Your task to perform on an android device: Open Google Maps and go to "Timeline" Image 0: 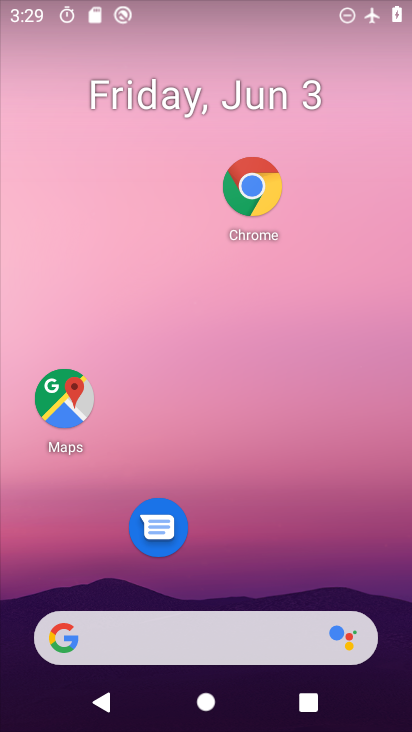
Step 0: click (73, 393)
Your task to perform on an android device: Open Google Maps and go to "Timeline" Image 1: 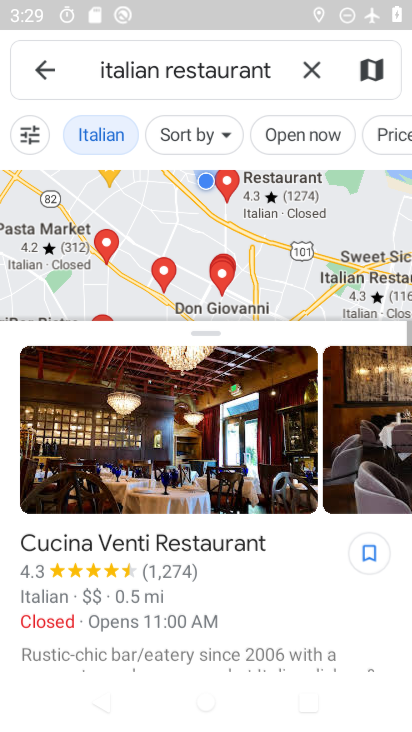
Step 1: click (319, 67)
Your task to perform on an android device: Open Google Maps and go to "Timeline" Image 2: 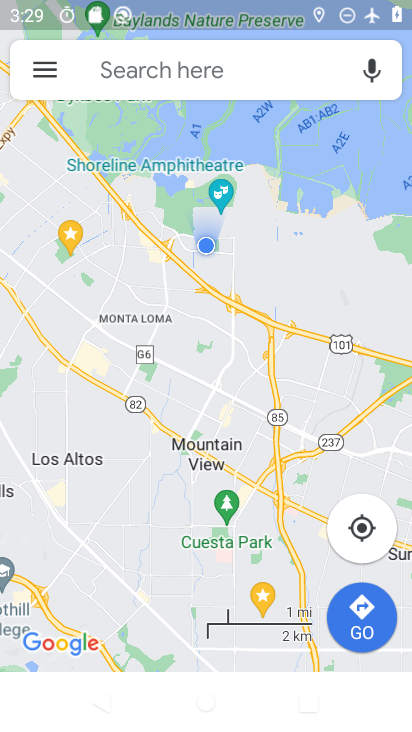
Step 2: click (53, 63)
Your task to perform on an android device: Open Google Maps and go to "Timeline" Image 3: 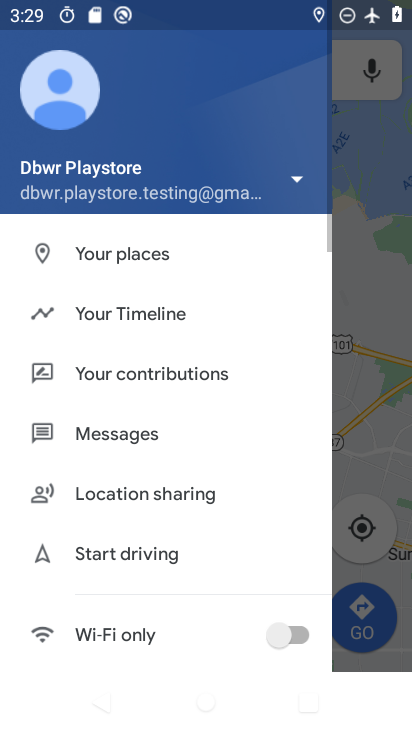
Step 3: click (143, 301)
Your task to perform on an android device: Open Google Maps and go to "Timeline" Image 4: 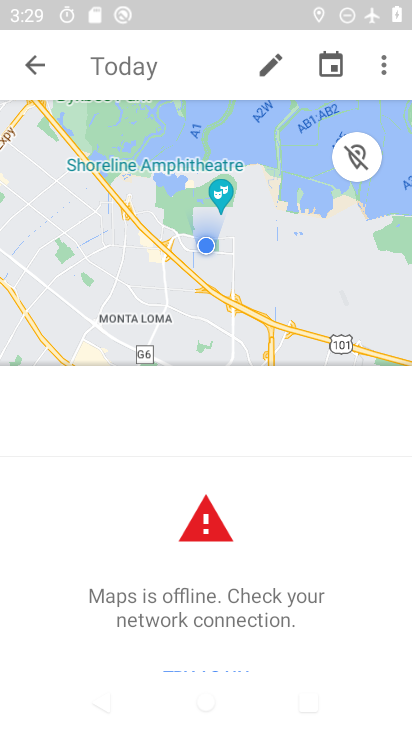
Step 4: task complete